Your task to perform on an android device: Search for vegetarian restaurants on Maps Image 0: 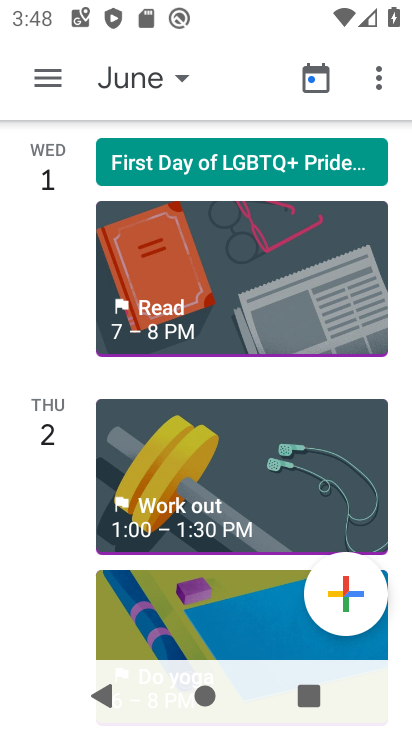
Step 0: press home button
Your task to perform on an android device: Search for vegetarian restaurants on Maps Image 1: 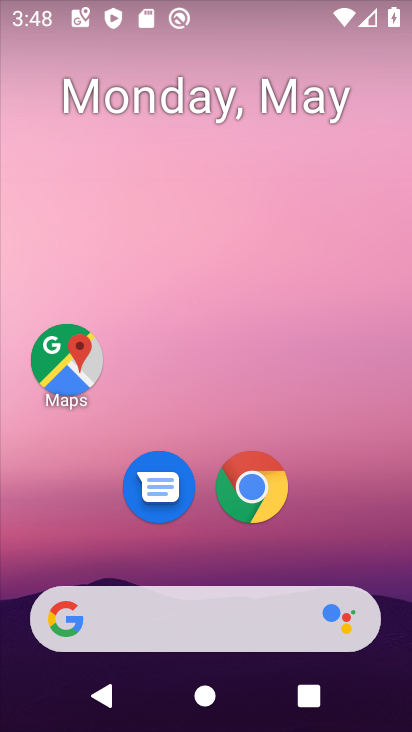
Step 1: click (255, 495)
Your task to perform on an android device: Search for vegetarian restaurants on Maps Image 2: 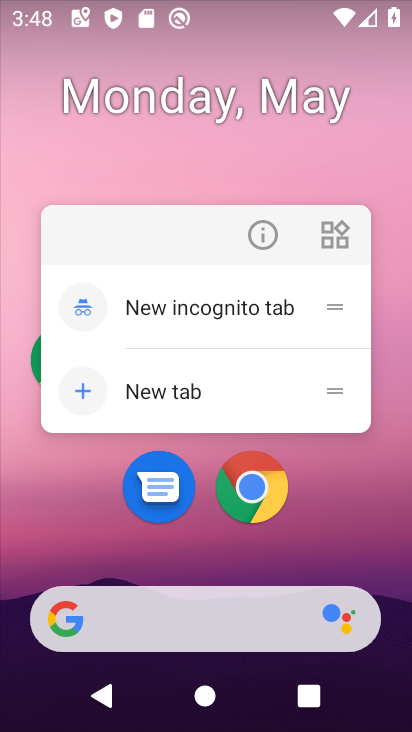
Step 2: press home button
Your task to perform on an android device: Search for vegetarian restaurants on Maps Image 3: 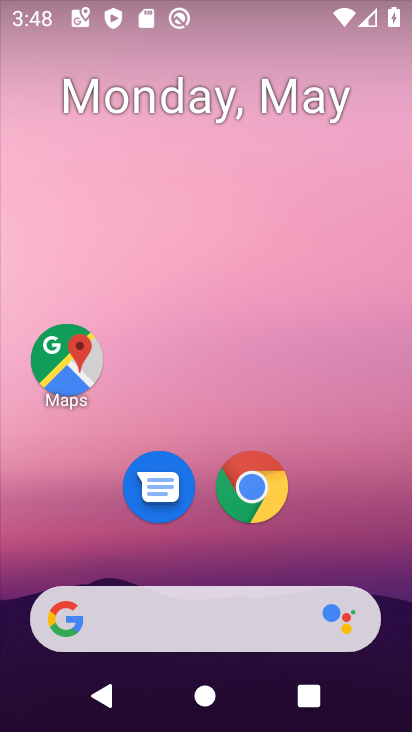
Step 3: click (68, 364)
Your task to perform on an android device: Search for vegetarian restaurants on Maps Image 4: 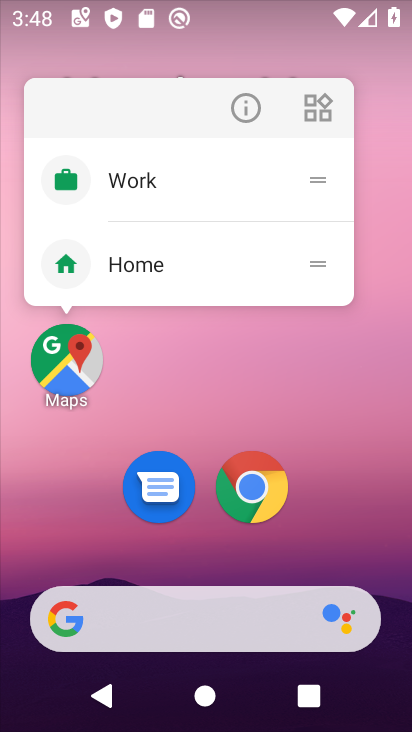
Step 4: click (68, 364)
Your task to perform on an android device: Search for vegetarian restaurants on Maps Image 5: 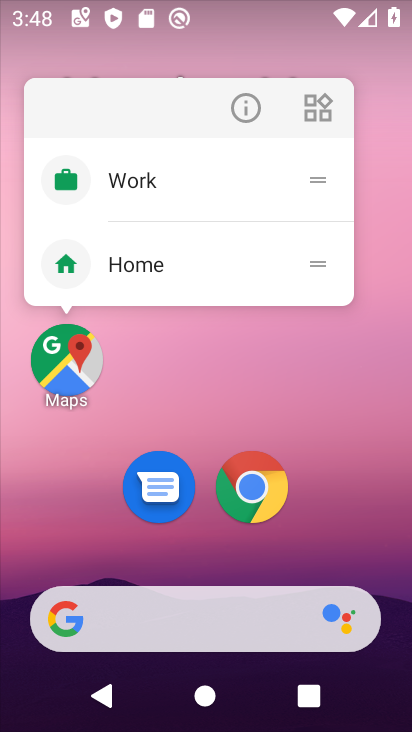
Step 5: click (70, 371)
Your task to perform on an android device: Search for vegetarian restaurants on Maps Image 6: 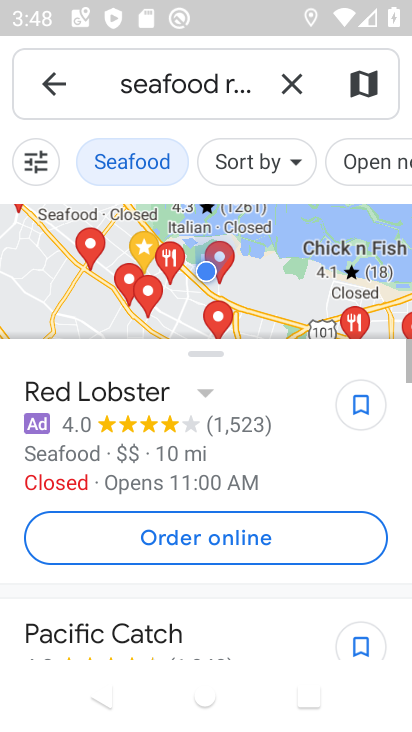
Step 6: click (286, 83)
Your task to perform on an android device: Search for vegetarian restaurants on Maps Image 7: 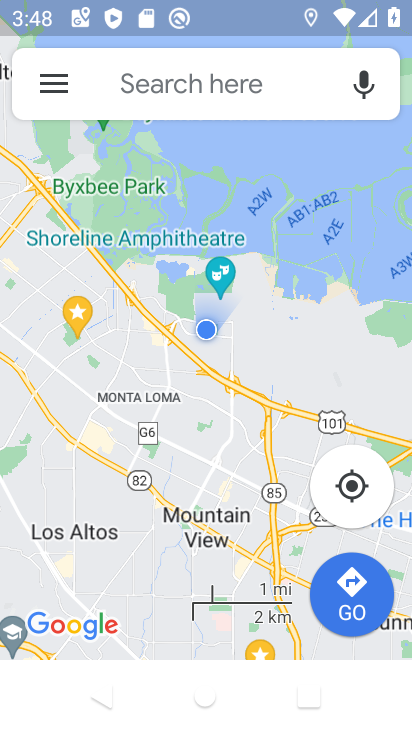
Step 7: click (231, 91)
Your task to perform on an android device: Search for vegetarian restaurants on Maps Image 8: 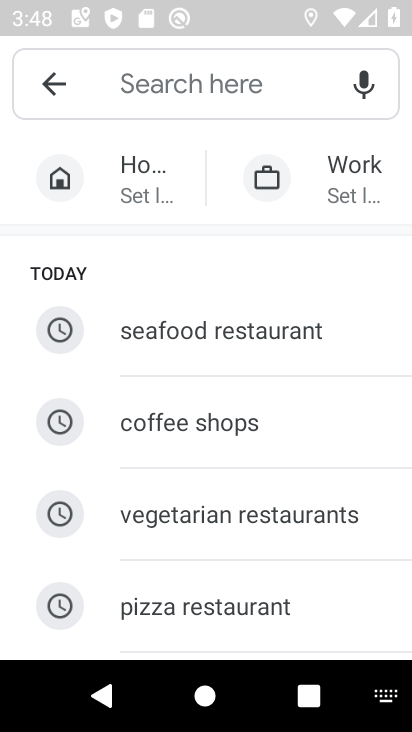
Step 8: click (176, 511)
Your task to perform on an android device: Search for vegetarian restaurants on Maps Image 9: 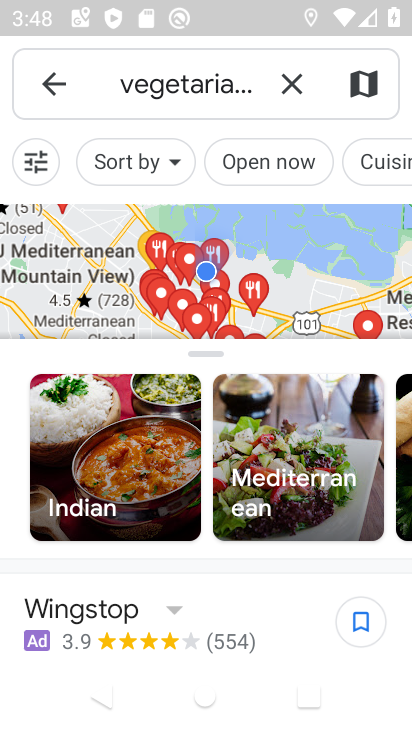
Step 9: task complete